Your task to perform on an android device: toggle improve location accuracy Image 0: 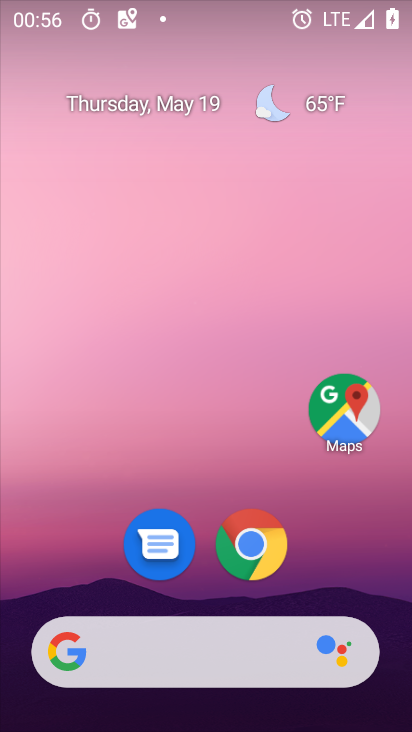
Step 0: drag from (366, 543) to (379, 172)
Your task to perform on an android device: toggle improve location accuracy Image 1: 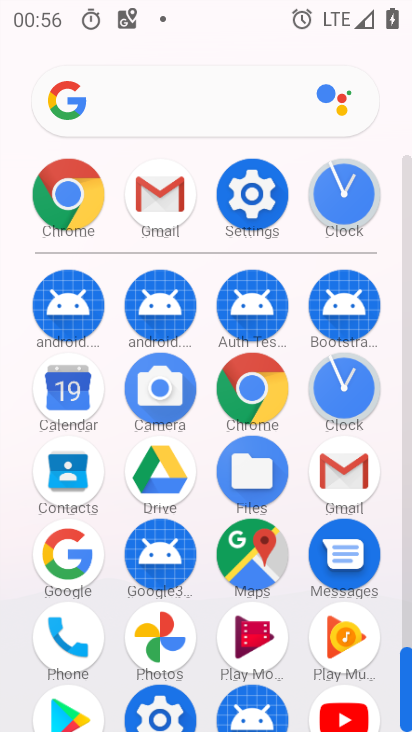
Step 1: click (236, 202)
Your task to perform on an android device: toggle improve location accuracy Image 2: 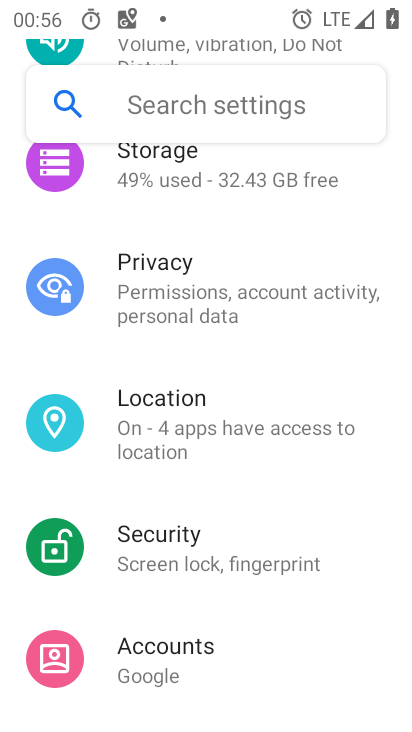
Step 2: drag from (339, 588) to (339, 344)
Your task to perform on an android device: toggle improve location accuracy Image 3: 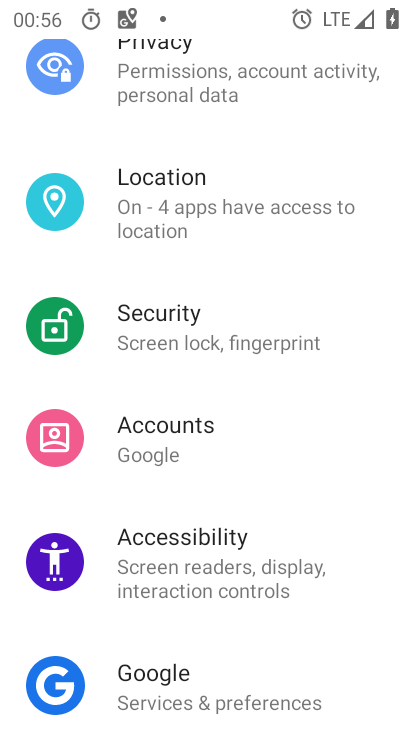
Step 3: drag from (341, 634) to (347, 385)
Your task to perform on an android device: toggle improve location accuracy Image 4: 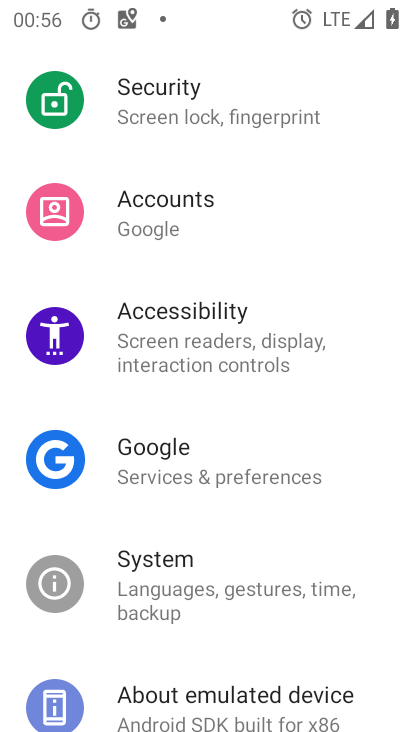
Step 4: drag from (330, 628) to (356, 392)
Your task to perform on an android device: toggle improve location accuracy Image 5: 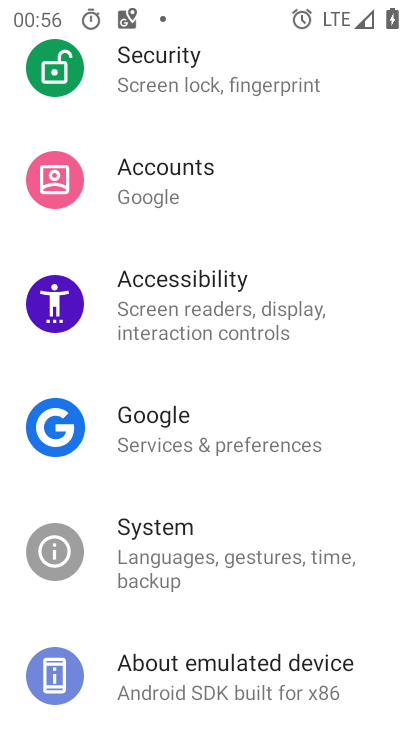
Step 5: drag from (355, 286) to (354, 532)
Your task to perform on an android device: toggle improve location accuracy Image 6: 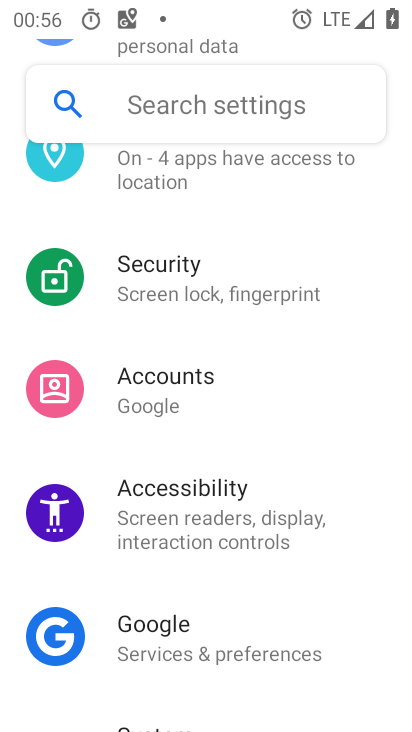
Step 6: drag from (349, 279) to (350, 453)
Your task to perform on an android device: toggle improve location accuracy Image 7: 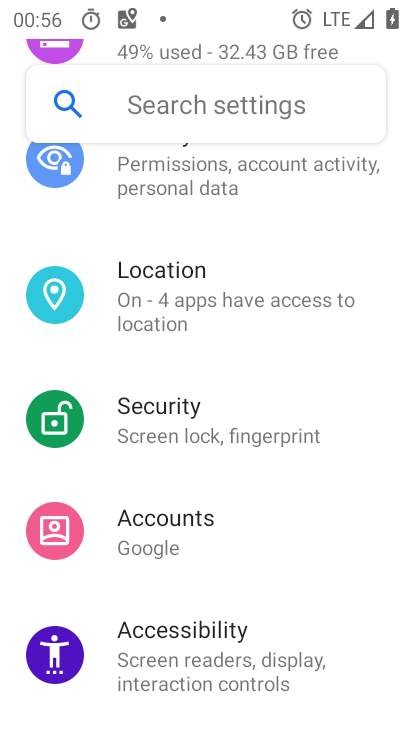
Step 7: drag from (370, 251) to (371, 389)
Your task to perform on an android device: toggle improve location accuracy Image 8: 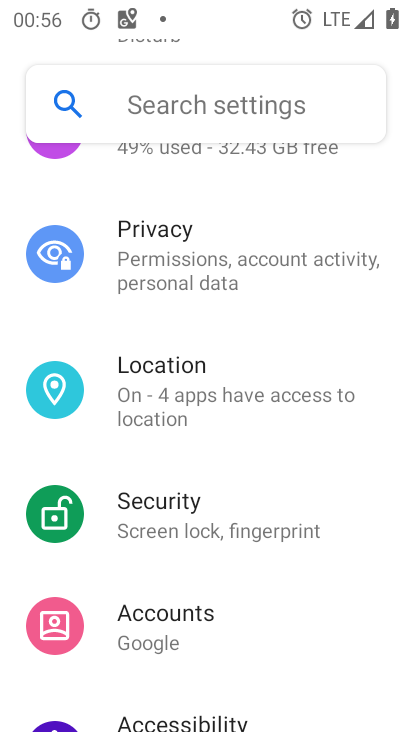
Step 8: drag from (367, 240) to (351, 431)
Your task to perform on an android device: toggle improve location accuracy Image 9: 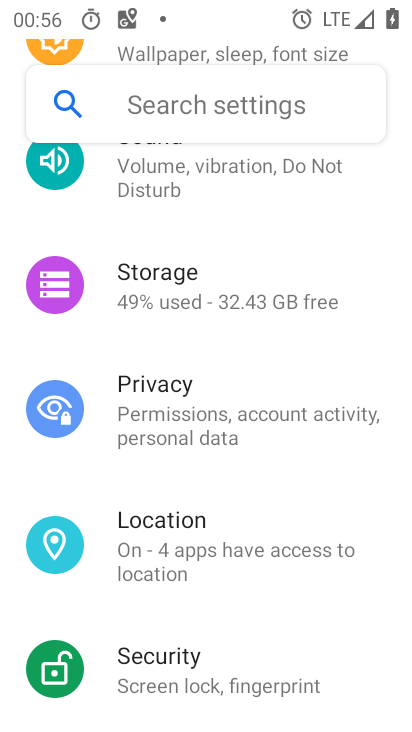
Step 9: drag from (360, 243) to (359, 408)
Your task to perform on an android device: toggle improve location accuracy Image 10: 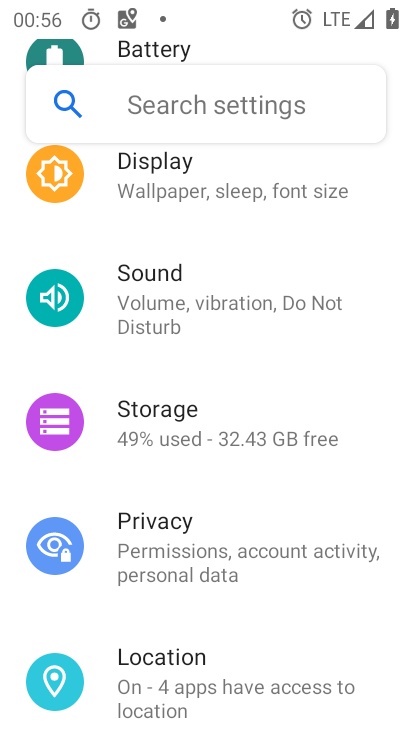
Step 10: drag from (365, 267) to (352, 444)
Your task to perform on an android device: toggle improve location accuracy Image 11: 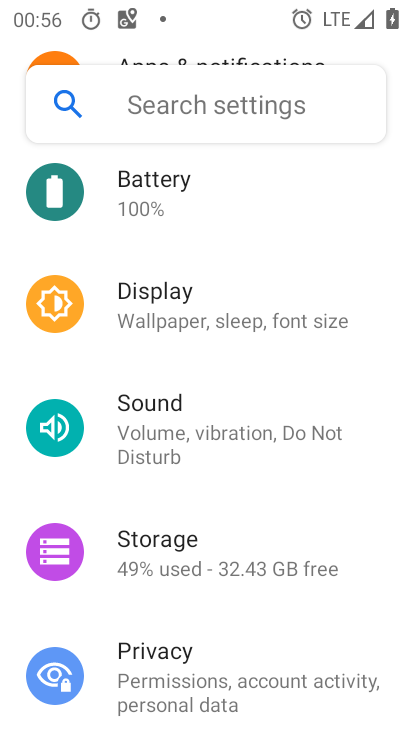
Step 11: drag from (366, 260) to (361, 398)
Your task to perform on an android device: toggle improve location accuracy Image 12: 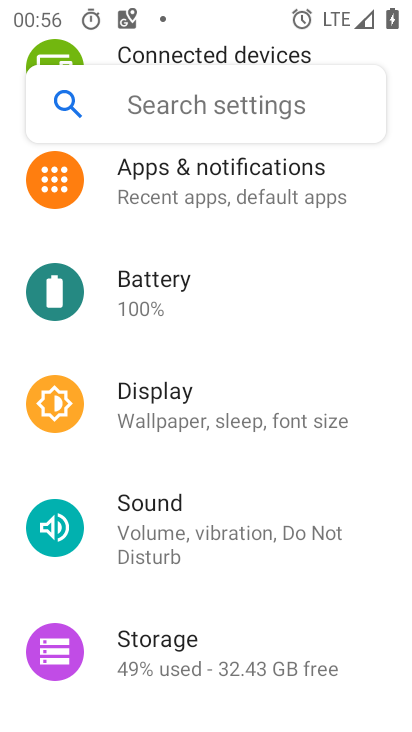
Step 12: drag from (365, 210) to (349, 348)
Your task to perform on an android device: toggle improve location accuracy Image 13: 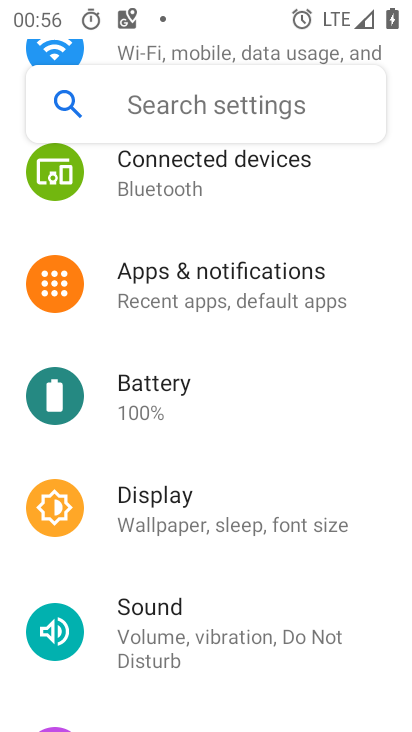
Step 13: drag from (346, 250) to (340, 381)
Your task to perform on an android device: toggle improve location accuracy Image 14: 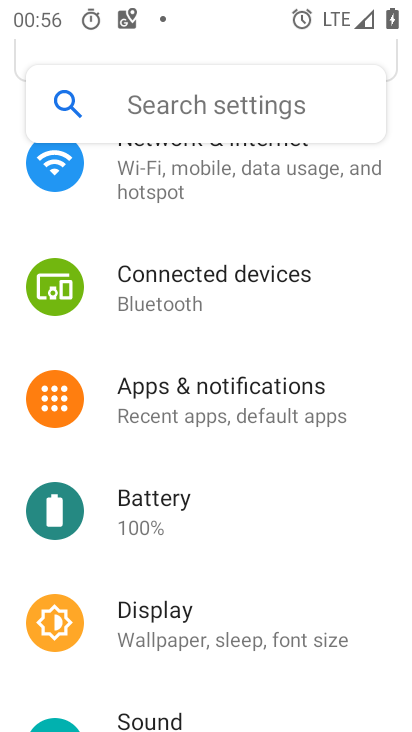
Step 14: drag from (354, 256) to (353, 396)
Your task to perform on an android device: toggle improve location accuracy Image 15: 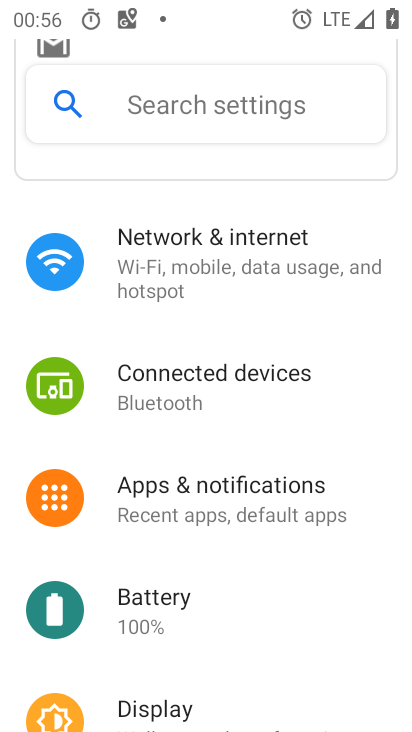
Step 15: drag from (342, 527) to (361, 358)
Your task to perform on an android device: toggle improve location accuracy Image 16: 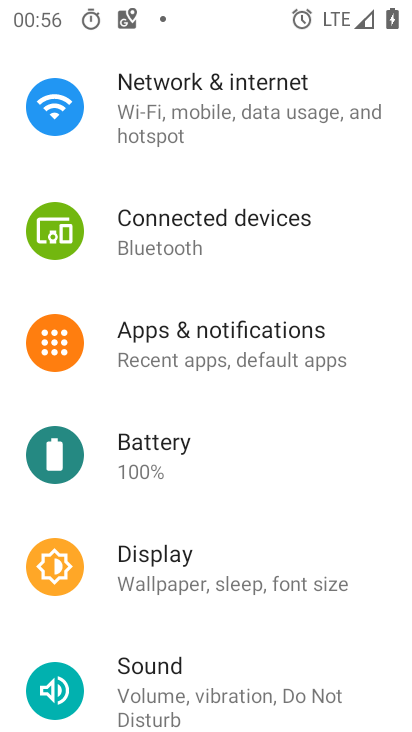
Step 16: drag from (341, 528) to (351, 387)
Your task to perform on an android device: toggle improve location accuracy Image 17: 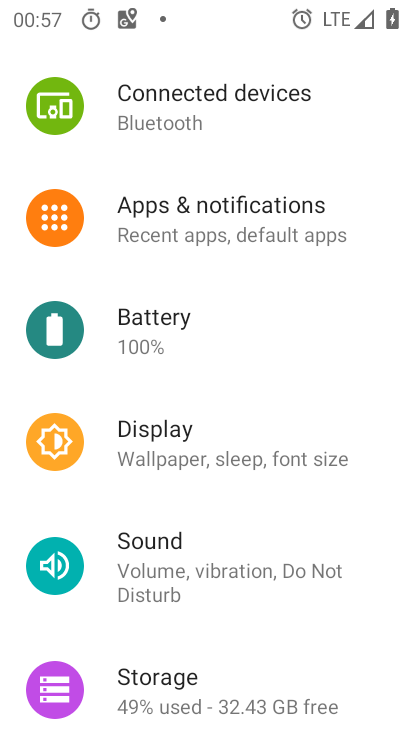
Step 17: drag from (360, 584) to (368, 321)
Your task to perform on an android device: toggle improve location accuracy Image 18: 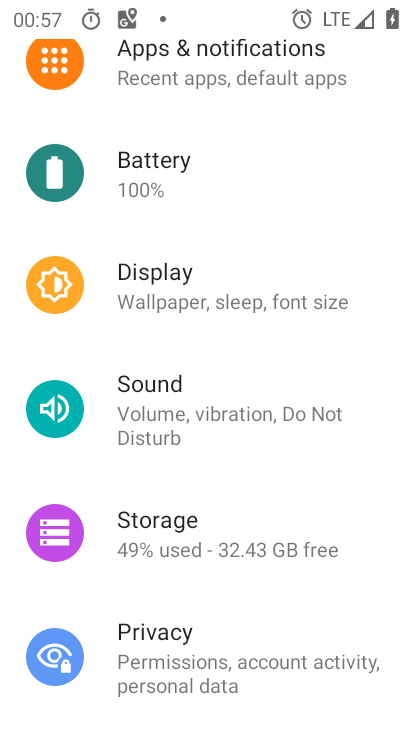
Step 18: drag from (333, 639) to (354, 419)
Your task to perform on an android device: toggle improve location accuracy Image 19: 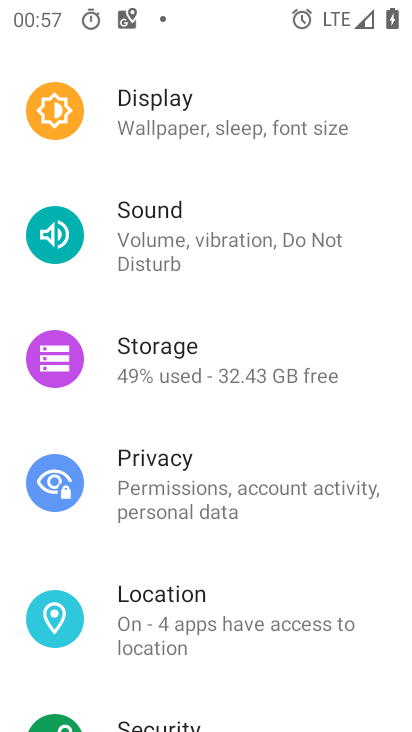
Step 19: drag from (331, 532) to (338, 362)
Your task to perform on an android device: toggle improve location accuracy Image 20: 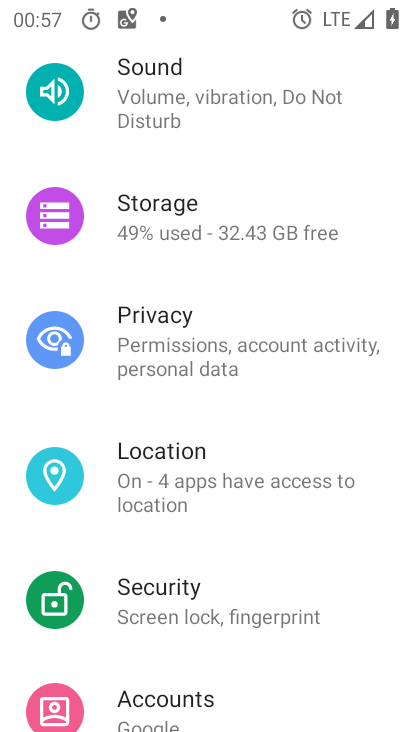
Step 20: click (309, 490)
Your task to perform on an android device: toggle improve location accuracy Image 21: 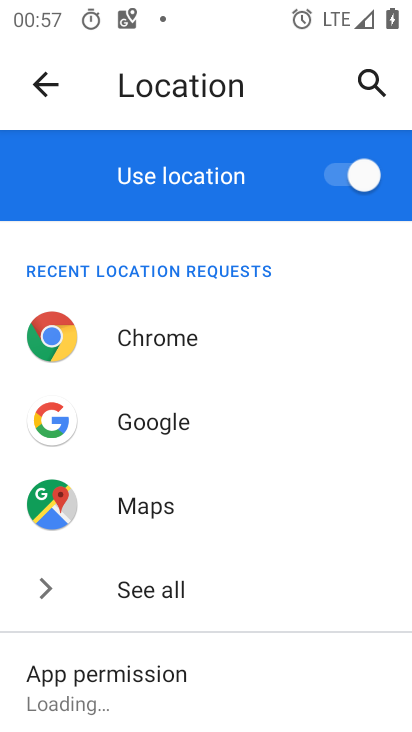
Step 21: drag from (276, 604) to (276, 413)
Your task to perform on an android device: toggle improve location accuracy Image 22: 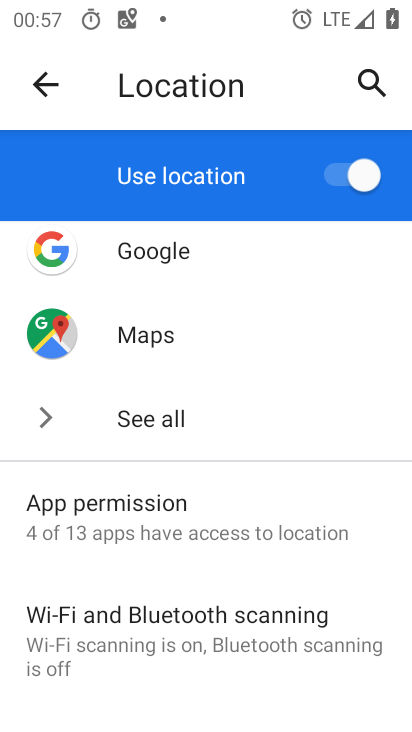
Step 22: drag from (285, 634) to (287, 378)
Your task to perform on an android device: toggle improve location accuracy Image 23: 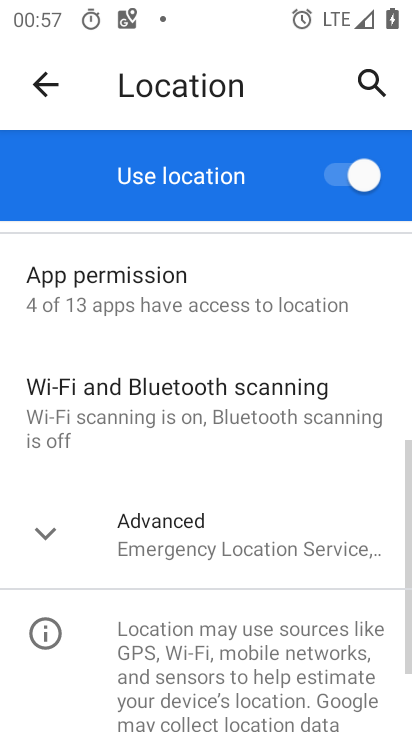
Step 23: click (259, 565)
Your task to perform on an android device: toggle improve location accuracy Image 24: 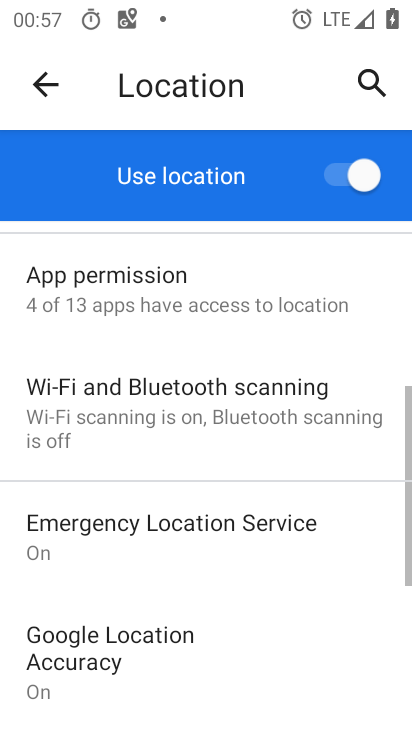
Step 24: drag from (271, 626) to (284, 405)
Your task to perform on an android device: toggle improve location accuracy Image 25: 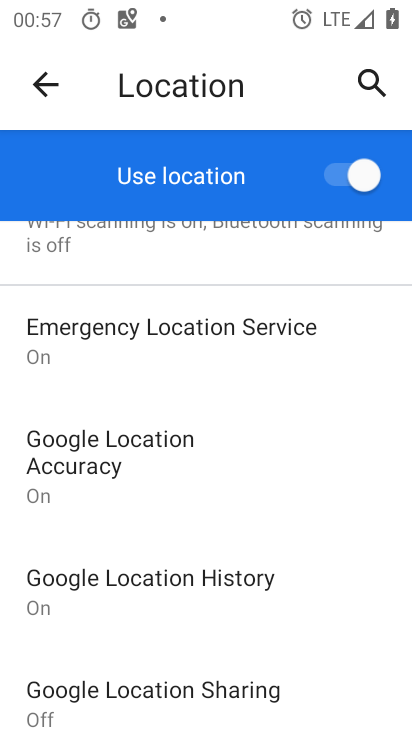
Step 25: click (105, 467)
Your task to perform on an android device: toggle improve location accuracy Image 26: 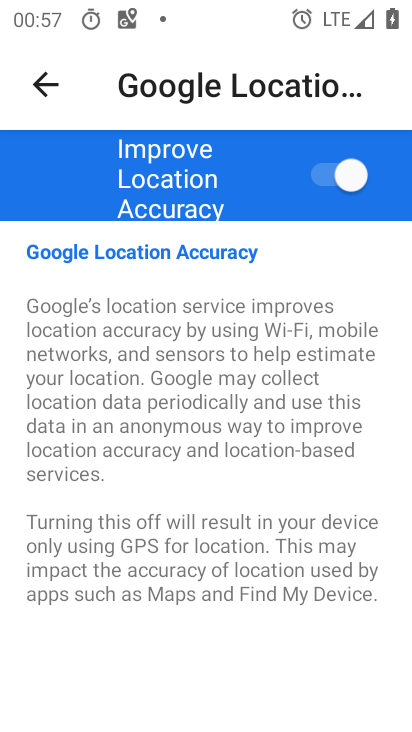
Step 26: click (343, 188)
Your task to perform on an android device: toggle improve location accuracy Image 27: 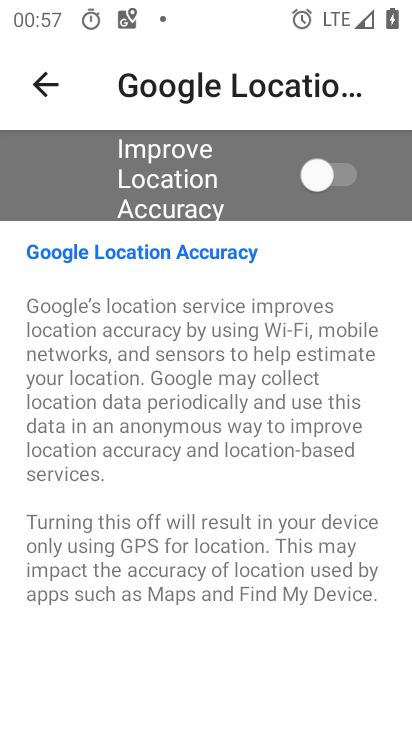
Step 27: task complete